Your task to perform on an android device: Go to privacy settings Image 0: 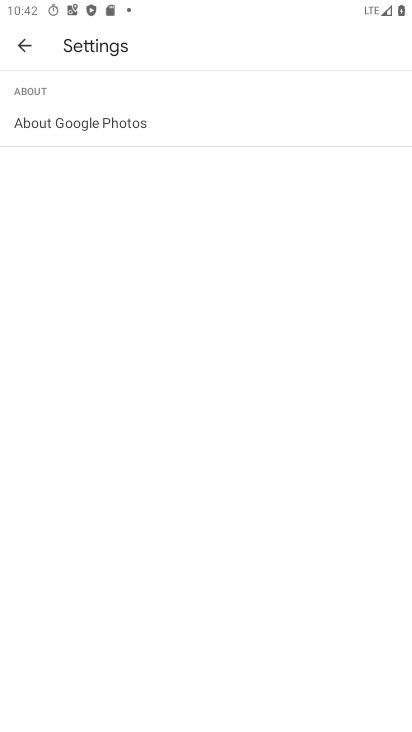
Step 0: press home button
Your task to perform on an android device: Go to privacy settings Image 1: 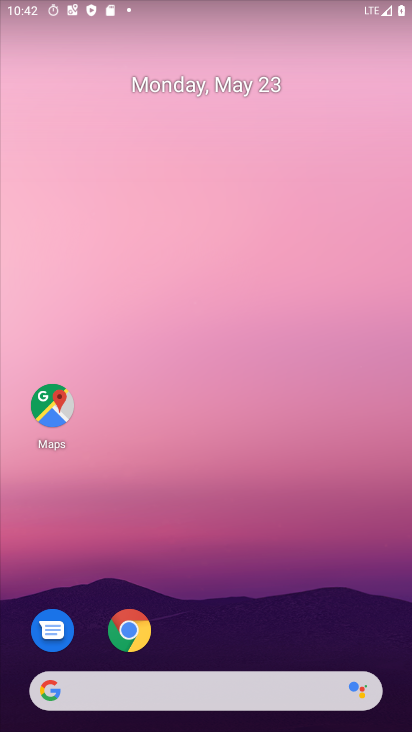
Step 1: drag from (273, 656) to (264, 28)
Your task to perform on an android device: Go to privacy settings Image 2: 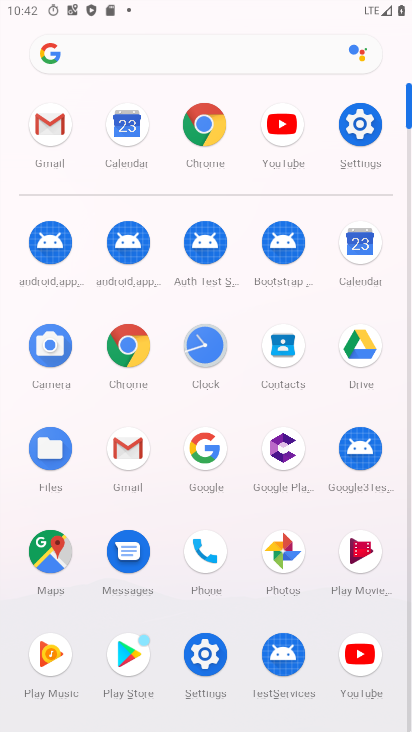
Step 2: click (357, 121)
Your task to perform on an android device: Go to privacy settings Image 3: 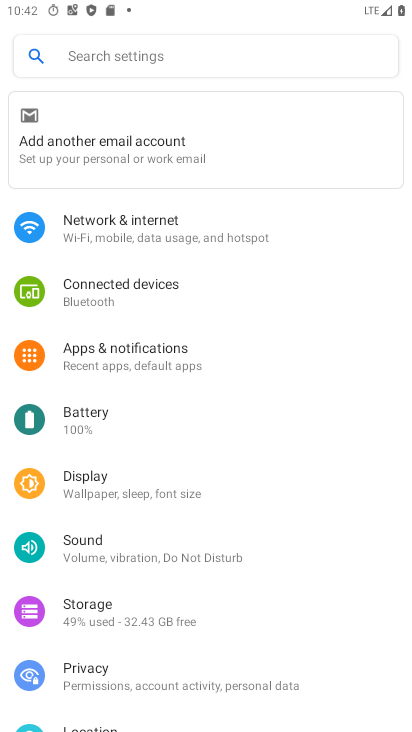
Step 3: click (95, 671)
Your task to perform on an android device: Go to privacy settings Image 4: 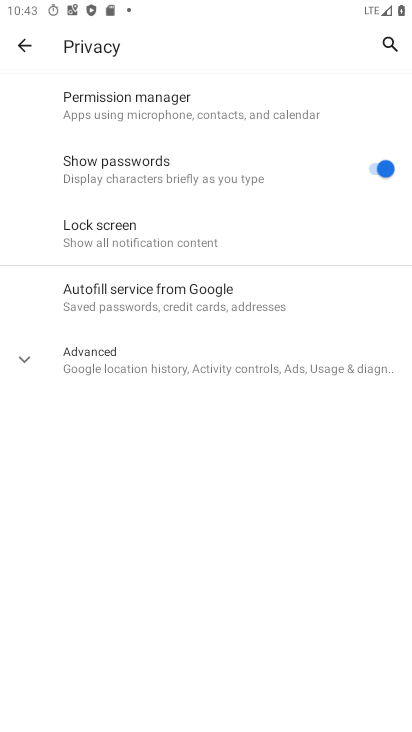
Step 4: task complete